Your task to perform on an android device: Open calendar and show me the first week of next month Image 0: 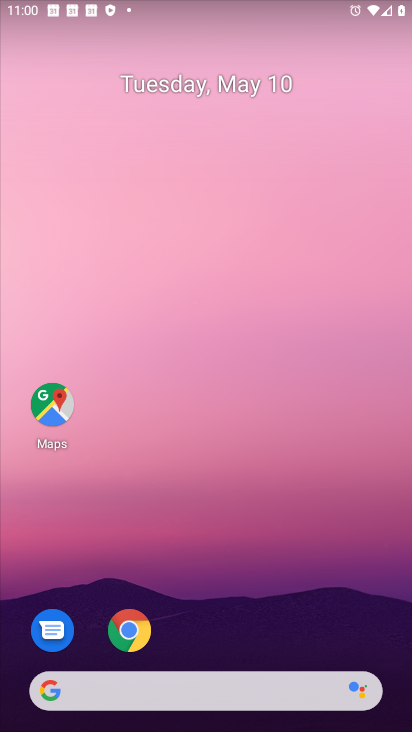
Step 0: drag from (206, 721) to (158, 0)
Your task to perform on an android device: Open calendar and show me the first week of next month Image 1: 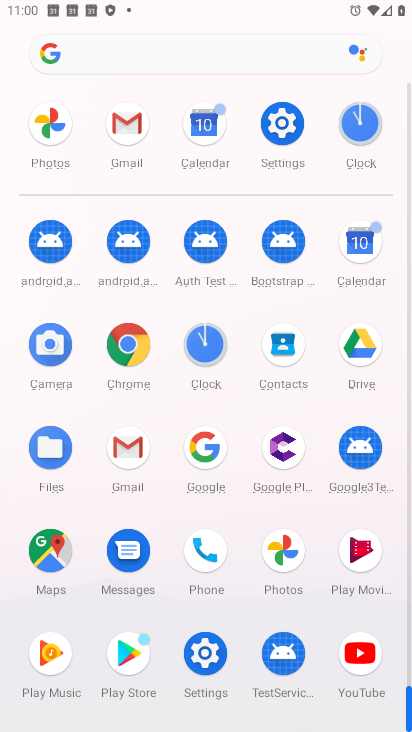
Step 1: click (358, 249)
Your task to perform on an android device: Open calendar and show me the first week of next month Image 2: 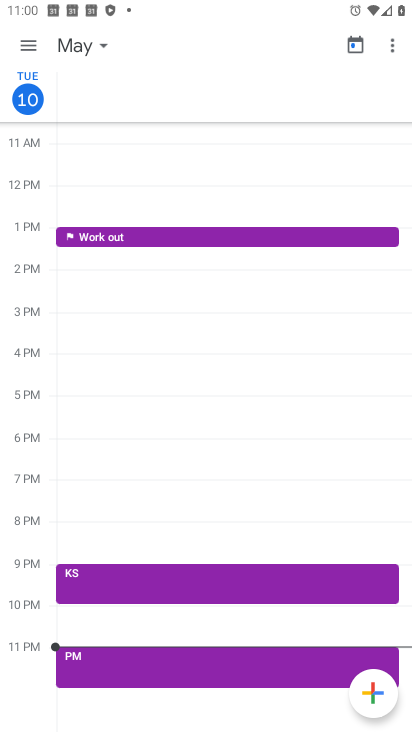
Step 2: click (105, 631)
Your task to perform on an android device: Open calendar and show me the first week of next month Image 3: 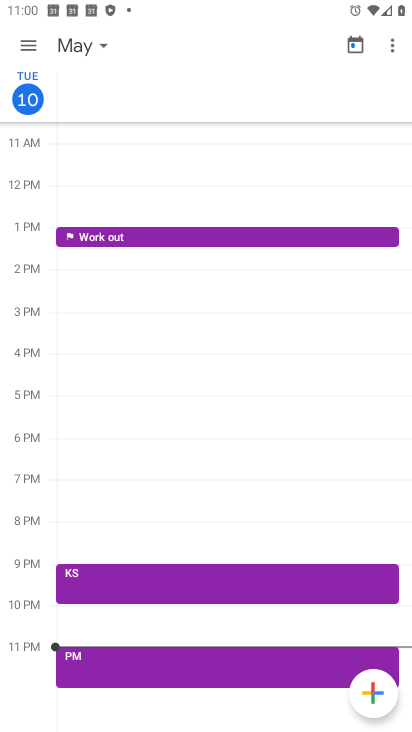
Step 3: task complete